Your task to perform on an android device: turn off improve location accuracy Image 0: 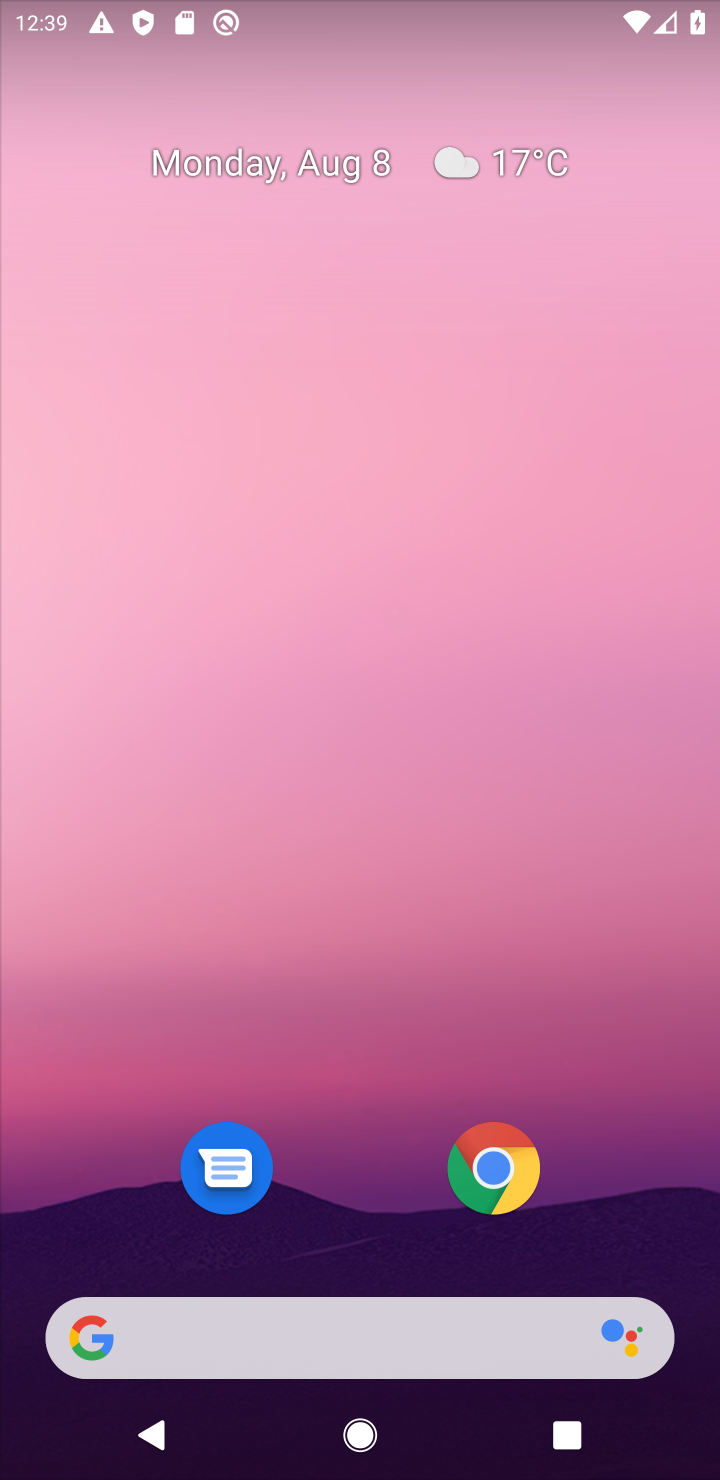
Step 0: drag from (154, 1234) to (449, 123)
Your task to perform on an android device: turn off improve location accuracy Image 1: 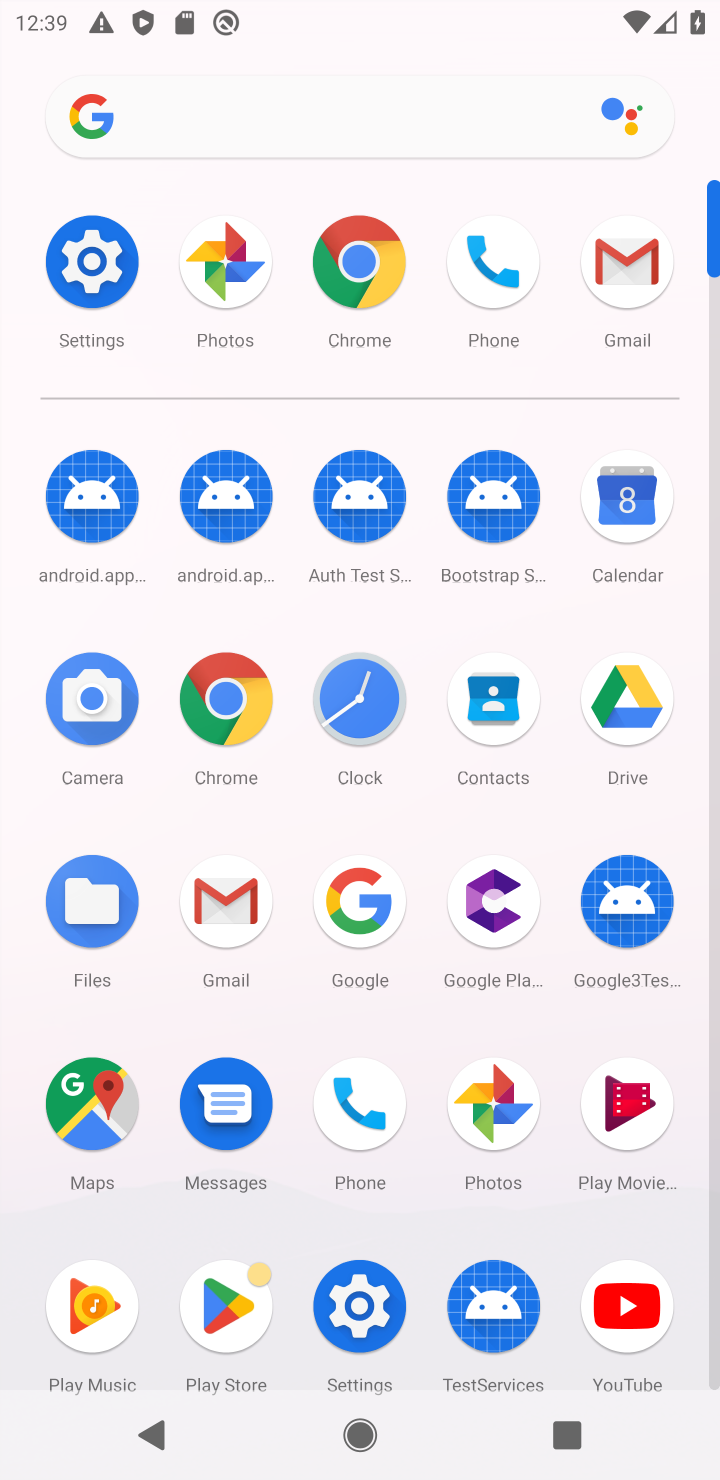
Step 1: click (357, 1297)
Your task to perform on an android device: turn off improve location accuracy Image 2: 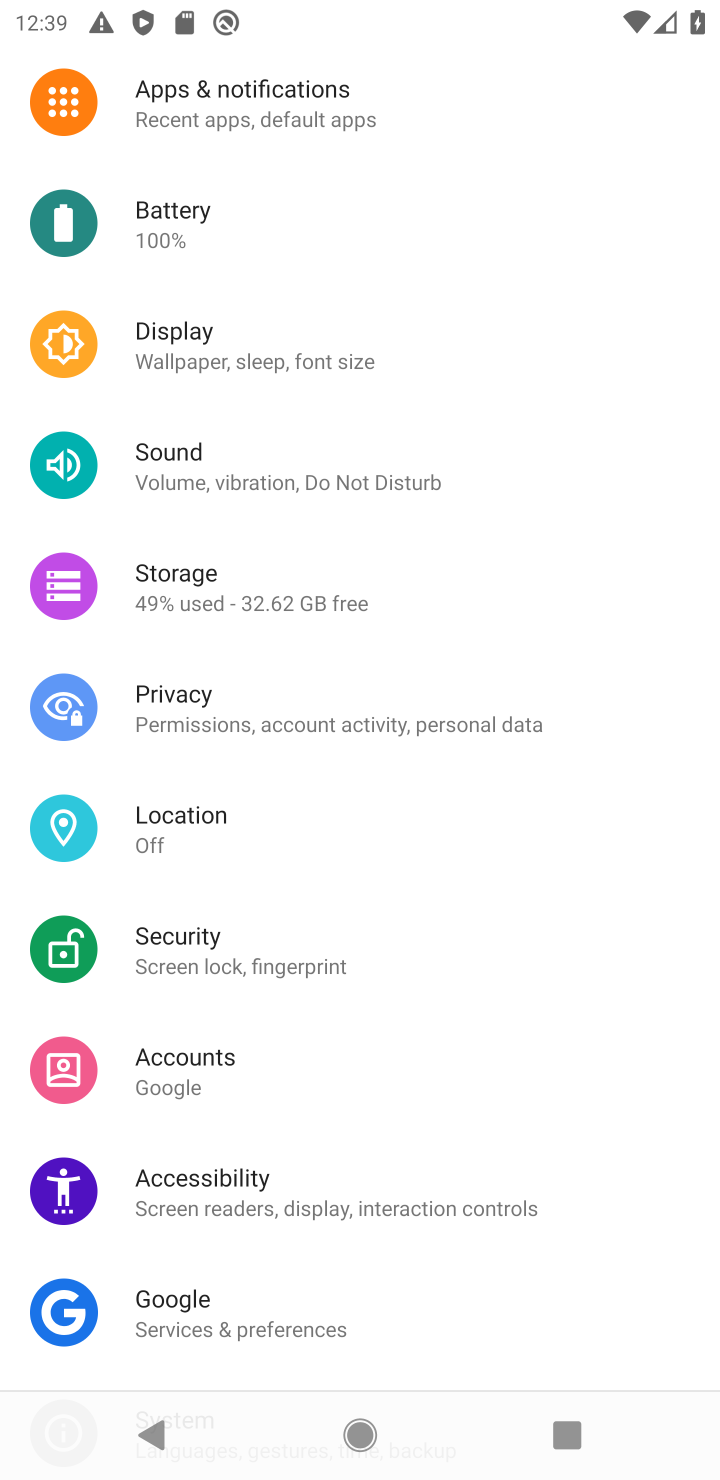
Step 2: click (168, 816)
Your task to perform on an android device: turn off improve location accuracy Image 3: 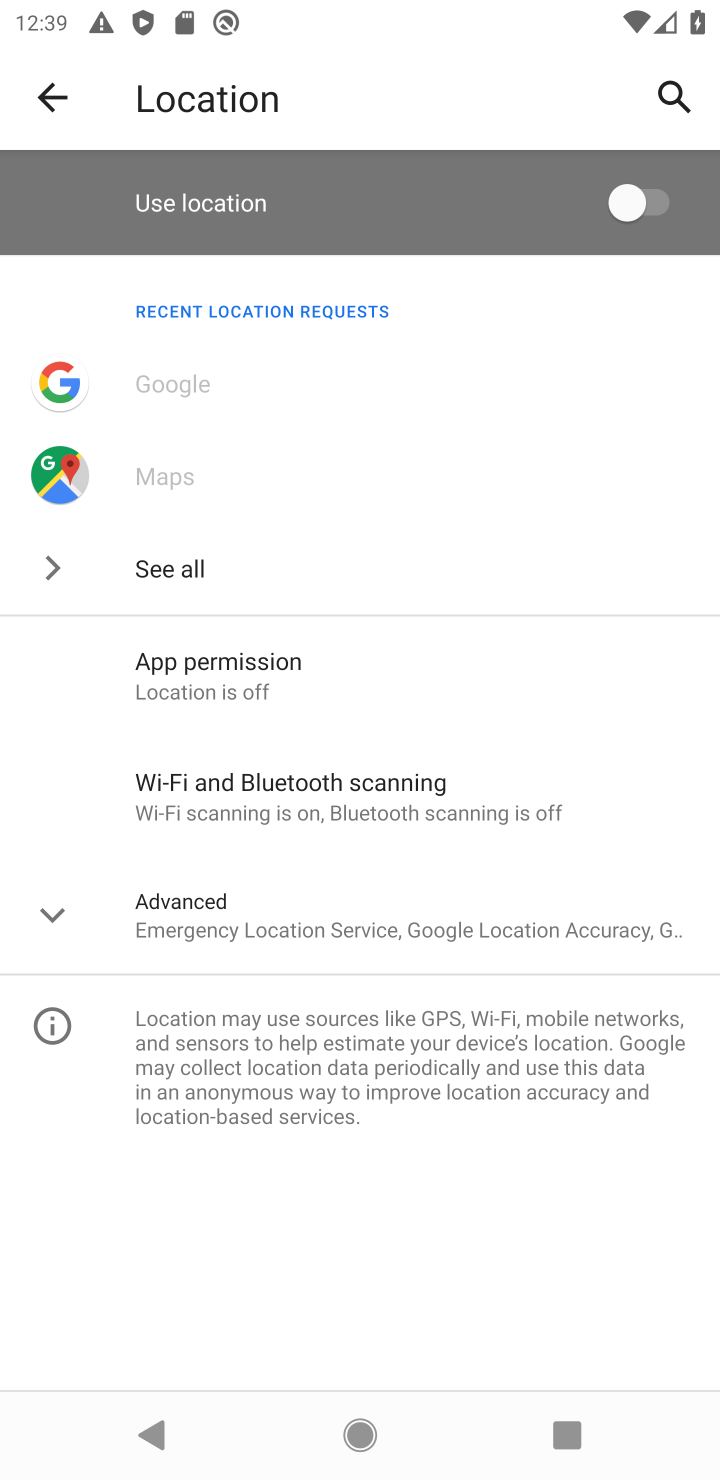
Step 3: click (209, 891)
Your task to perform on an android device: turn off improve location accuracy Image 4: 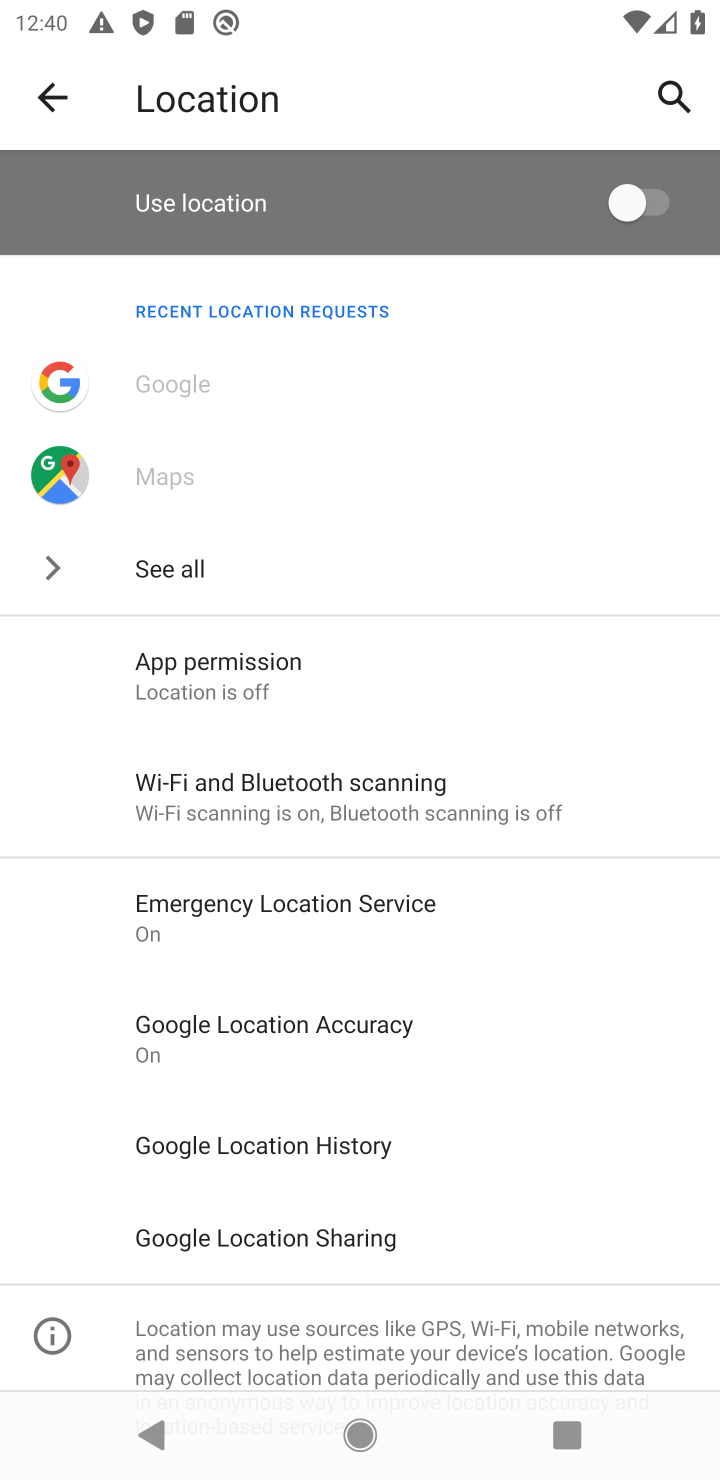
Step 4: click (261, 1021)
Your task to perform on an android device: turn off improve location accuracy Image 5: 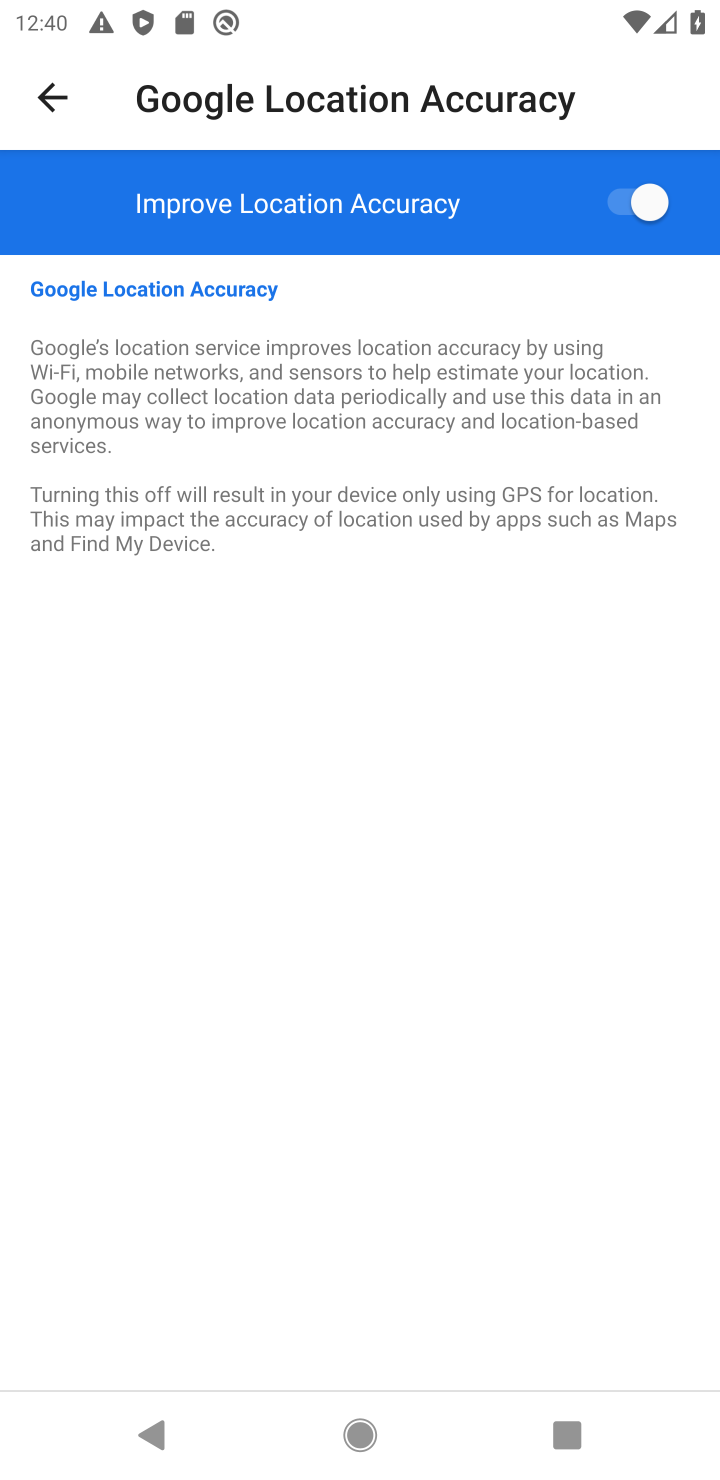
Step 5: click (654, 201)
Your task to perform on an android device: turn off improve location accuracy Image 6: 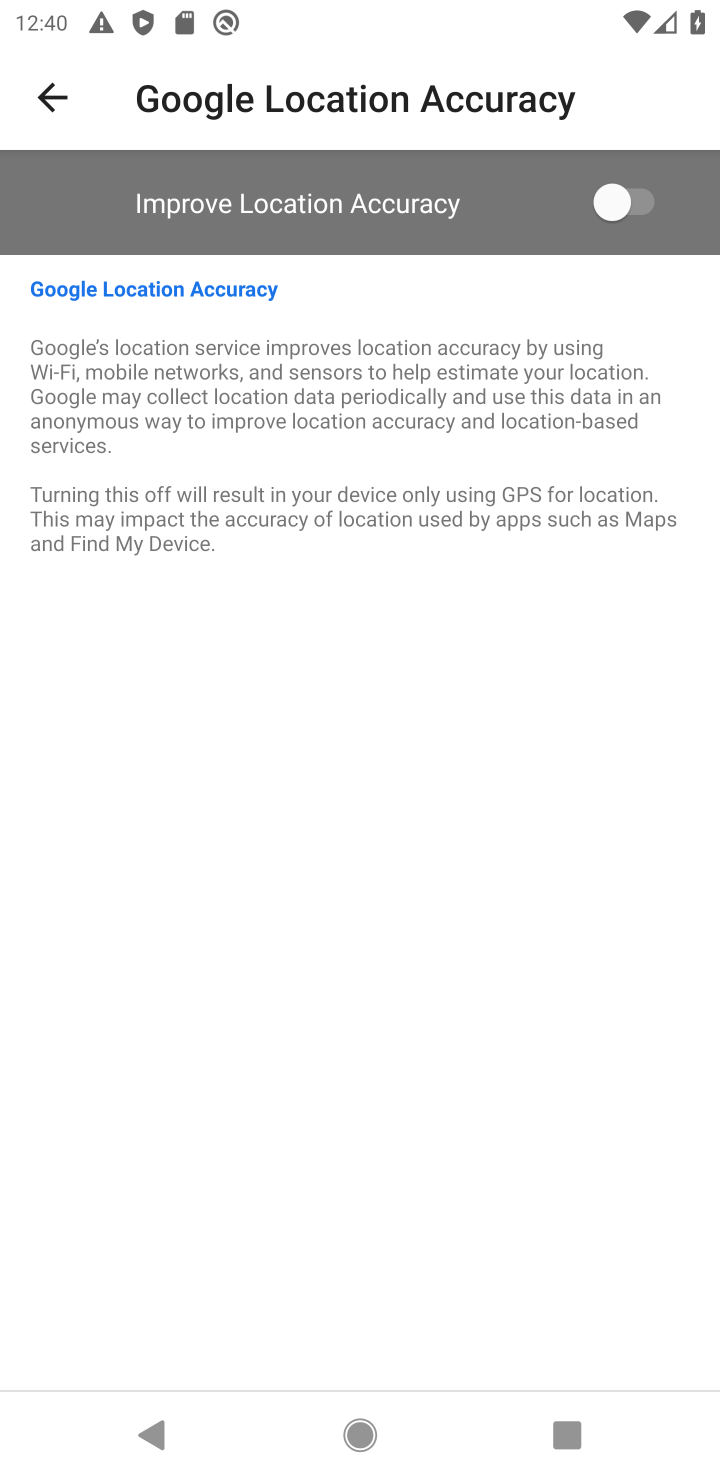
Step 6: task complete